Your task to perform on an android device: change the upload size in google photos Image 0: 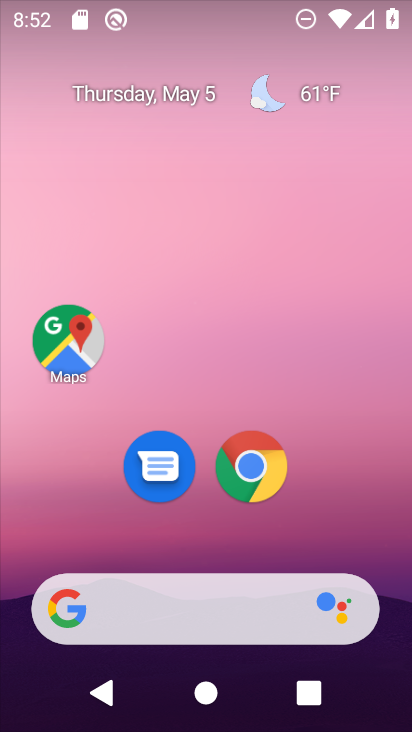
Step 0: drag from (237, 583) to (266, 10)
Your task to perform on an android device: change the upload size in google photos Image 1: 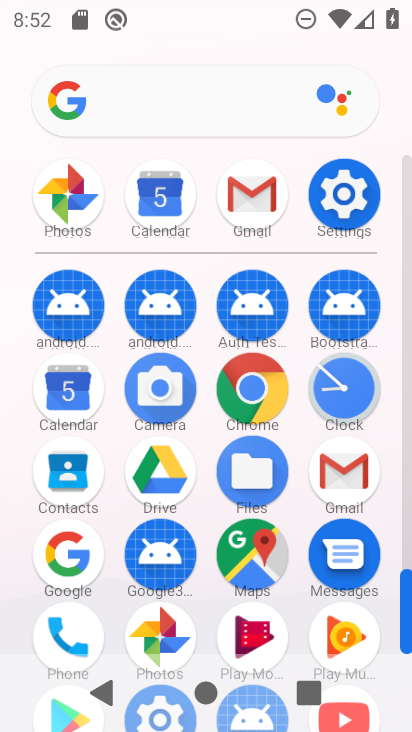
Step 1: click (152, 620)
Your task to perform on an android device: change the upload size in google photos Image 2: 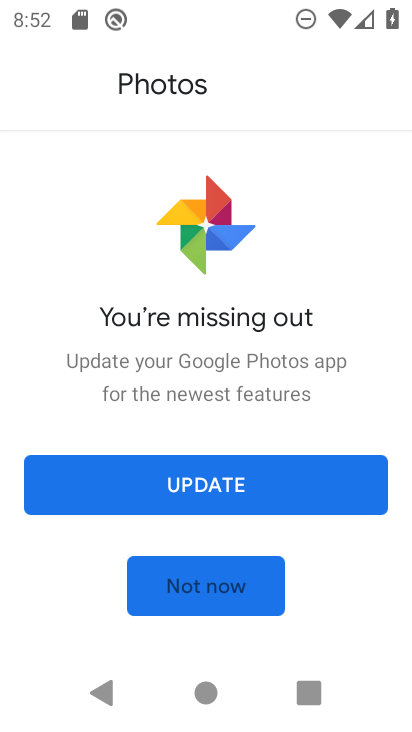
Step 2: click (228, 594)
Your task to perform on an android device: change the upload size in google photos Image 3: 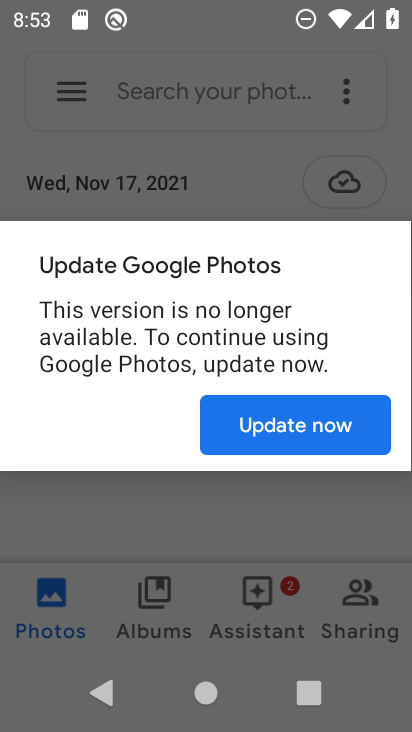
Step 3: click (299, 444)
Your task to perform on an android device: change the upload size in google photos Image 4: 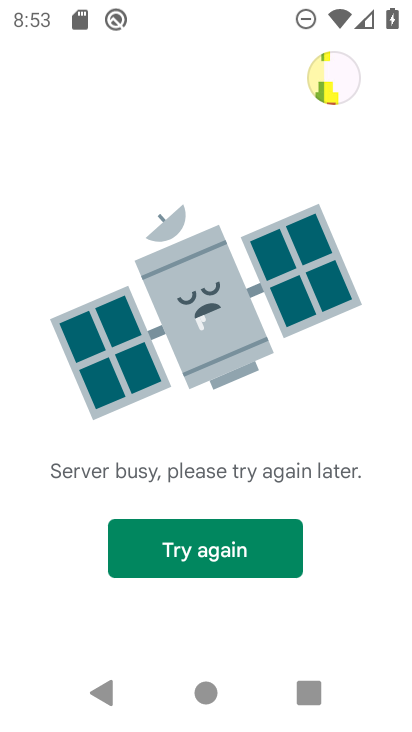
Step 4: task complete